Your task to perform on an android device: Search for seafood restaurants on Google Maps Image 0: 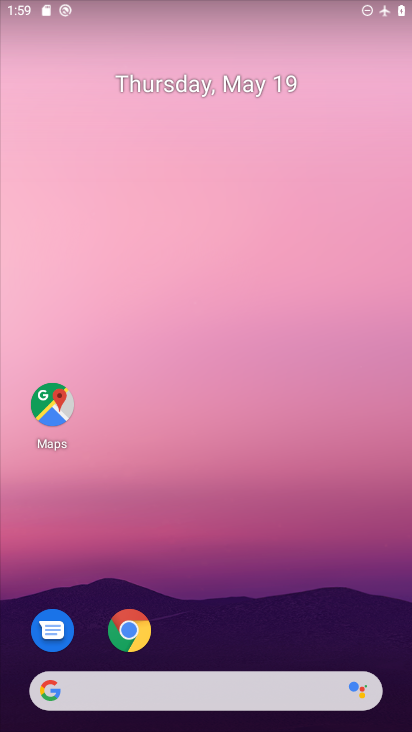
Step 0: click (53, 415)
Your task to perform on an android device: Search for seafood restaurants on Google Maps Image 1: 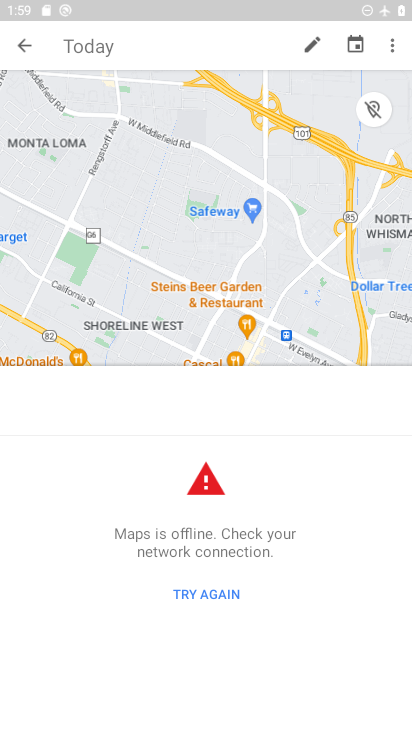
Step 1: click (29, 42)
Your task to perform on an android device: Search for seafood restaurants on Google Maps Image 2: 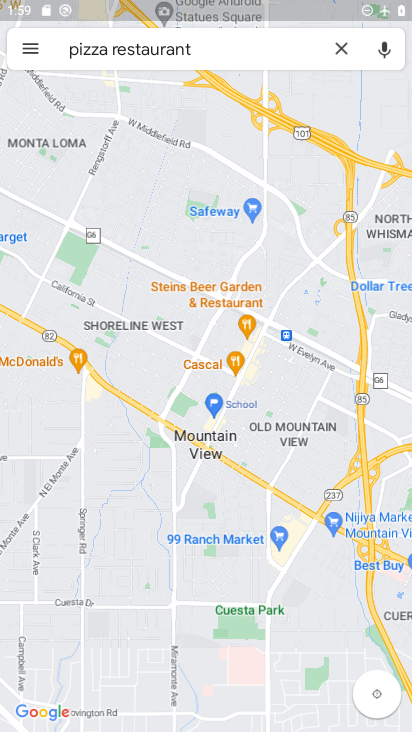
Step 2: click (343, 45)
Your task to perform on an android device: Search for seafood restaurants on Google Maps Image 3: 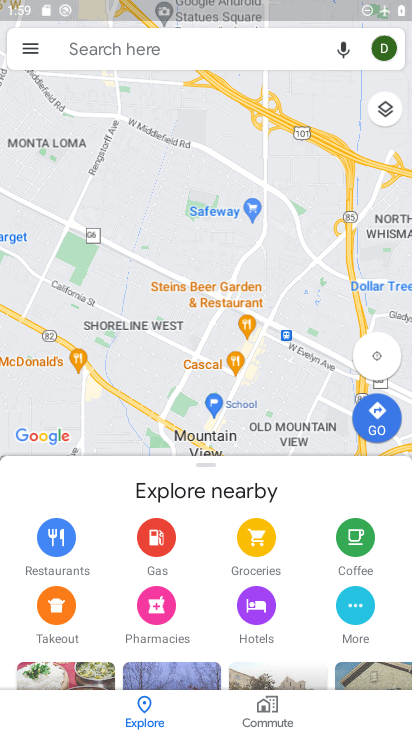
Step 3: click (223, 54)
Your task to perform on an android device: Search for seafood restaurants on Google Maps Image 4: 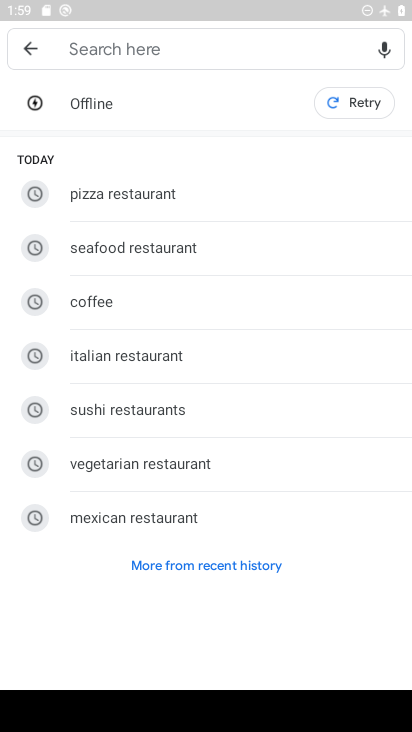
Step 4: click (141, 235)
Your task to perform on an android device: Search for seafood restaurants on Google Maps Image 5: 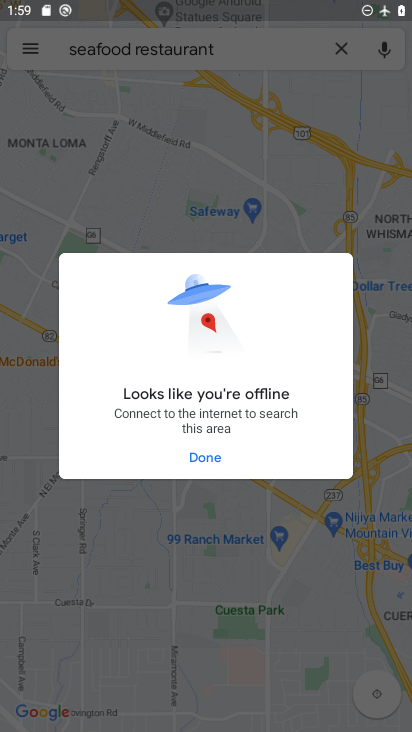
Step 5: task complete